Your task to perform on an android device: Search for razer thresher on bestbuy.com, select the first entry, add it to the cart, then select checkout. Image 0: 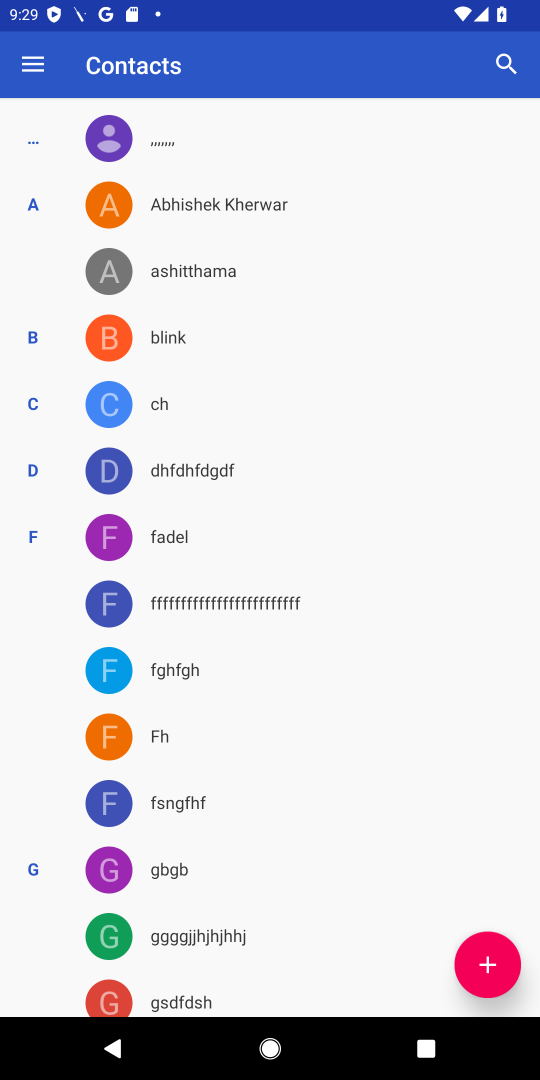
Step 0: press home button
Your task to perform on an android device: Search for razer thresher on bestbuy.com, select the first entry, add it to the cart, then select checkout. Image 1: 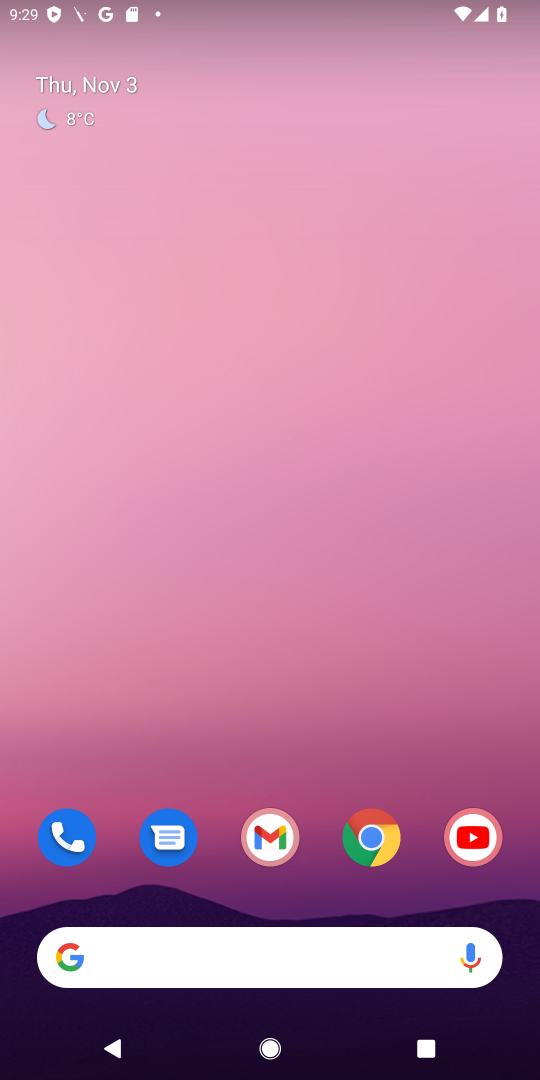
Step 1: click (389, 828)
Your task to perform on an android device: Search for razer thresher on bestbuy.com, select the first entry, add it to the cart, then select checkout. Image 2: 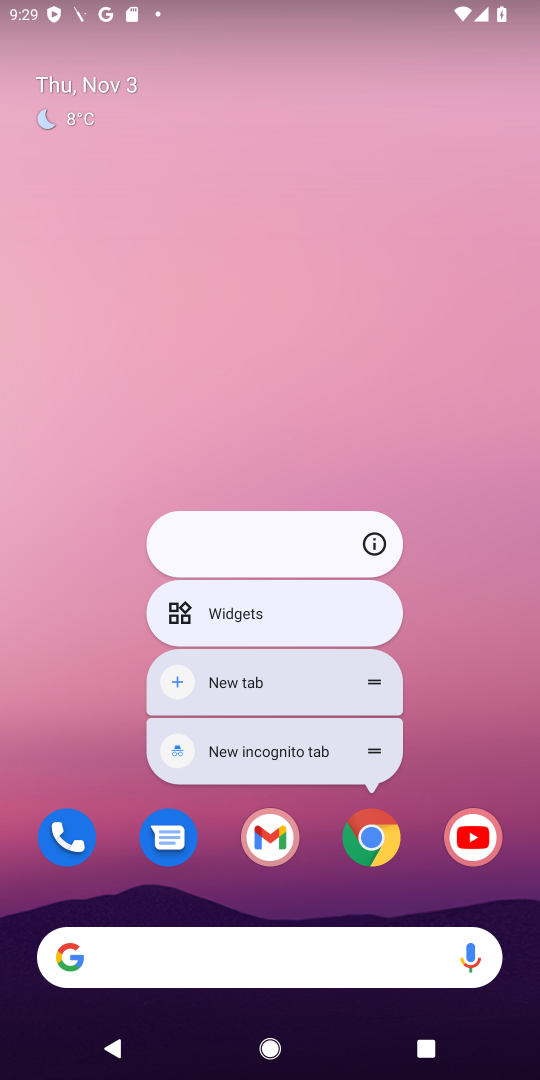
Step 2: click (376, 832)
Your task to perform on an android device: Search for razer thresher on bestbuy.com, select the first entry, add it to the cart, then select checkout. Image 3: 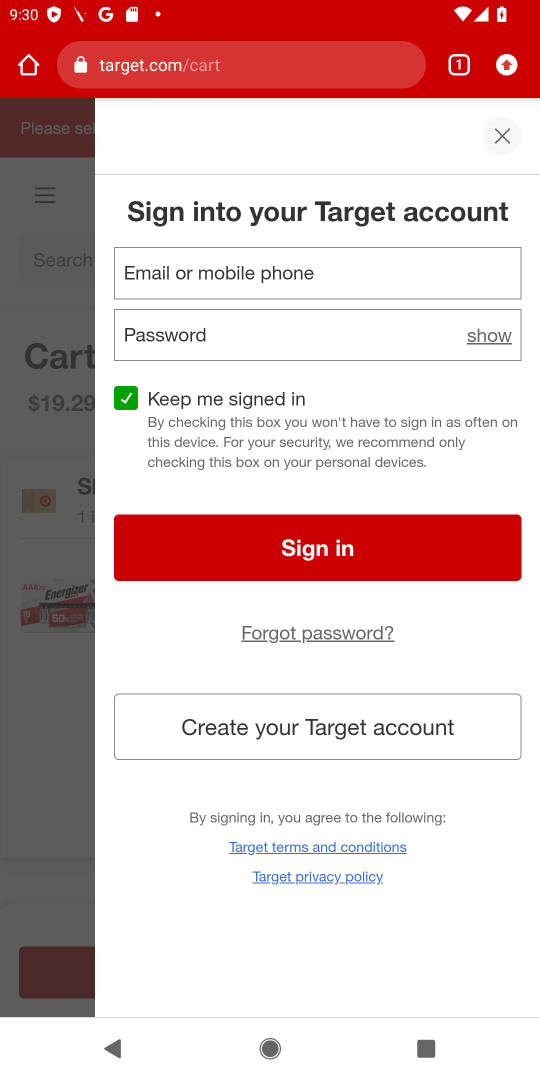
Step 3: click (281, 53)
Your task to perform on an android device: Search for razer thresher on bestbuy.com, select the first entry, add it to the cart, then select checkout. Image 4: 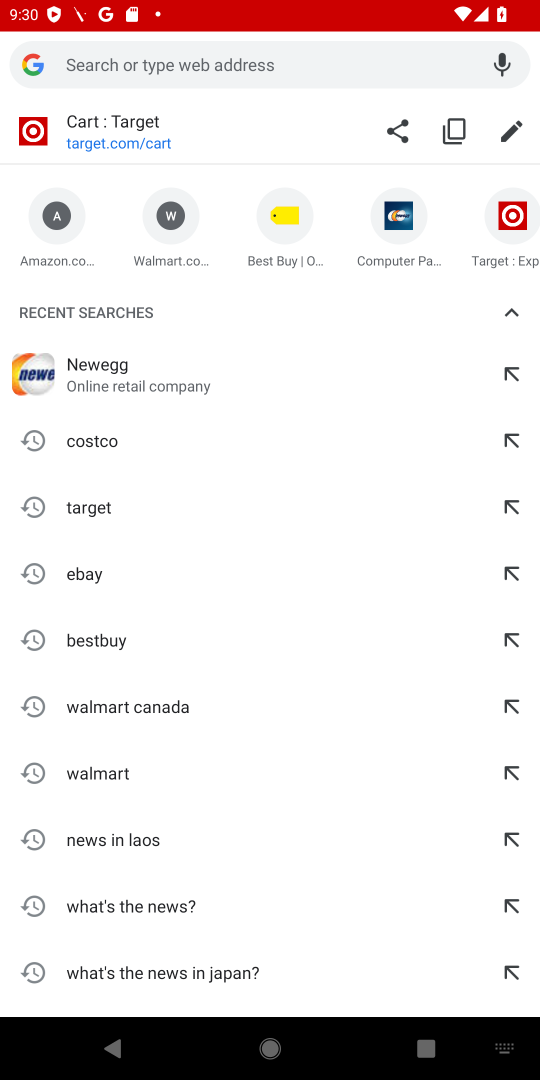
Step 4: click (107, 630)
Your task to perform on an android device: Search for razer thresher on bestbuy.com, select the first entry, add it to the cart, then select checkout. Image 5: 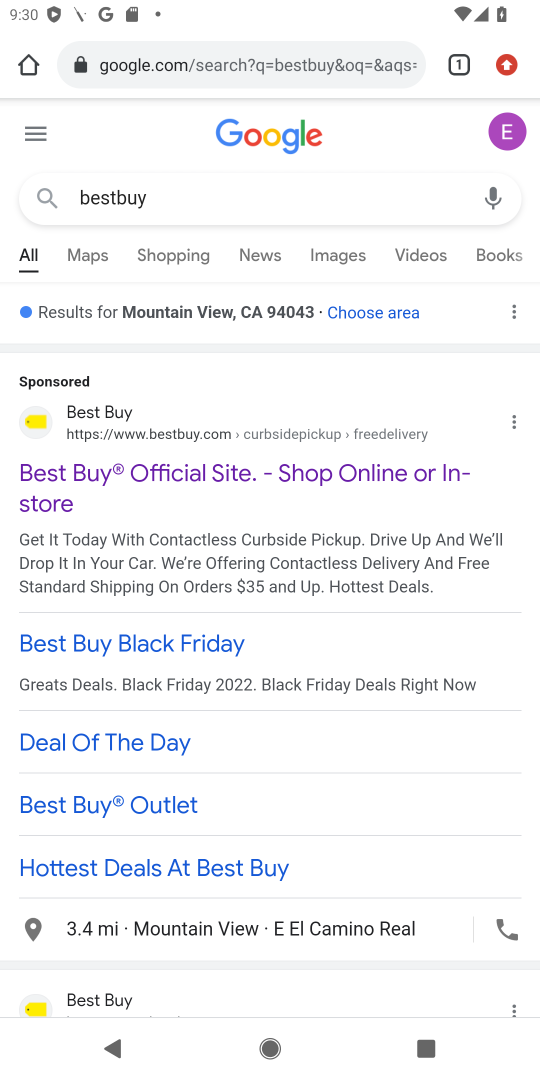
Step 5: click (127, 472)
Your task to perform on an android device: Search for razer thresher on bestbuy.com, select the first entry, add it to the cart, then select checkout. Image 6: 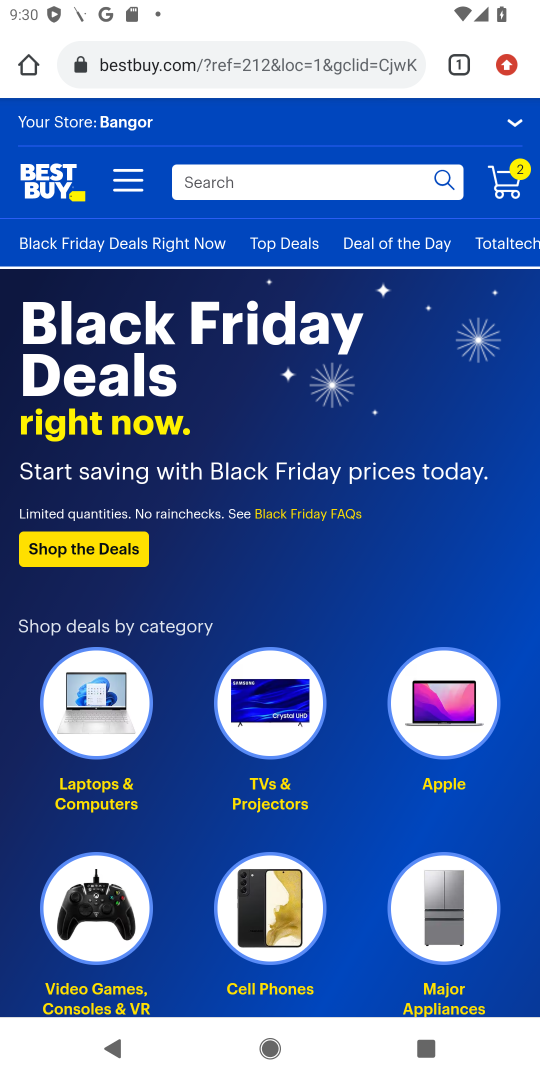
Step 6: click (366, 178)
Your task to perform on an android device: Search for razer thresher on bestbuy.com, select the first entry, add it to the cart, then select checkout. Image 7: 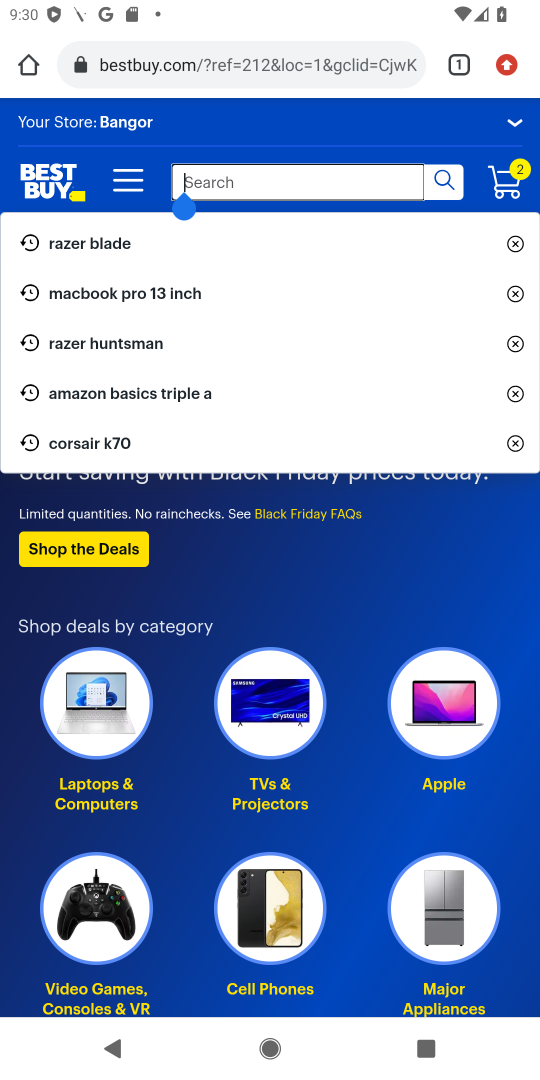
Step 7: type "razer thresher "
Your task to perform on an android device: Search for razer thresher on bestbuy.com, select the first entry, add it to the cart, then select checkout. Image 8: 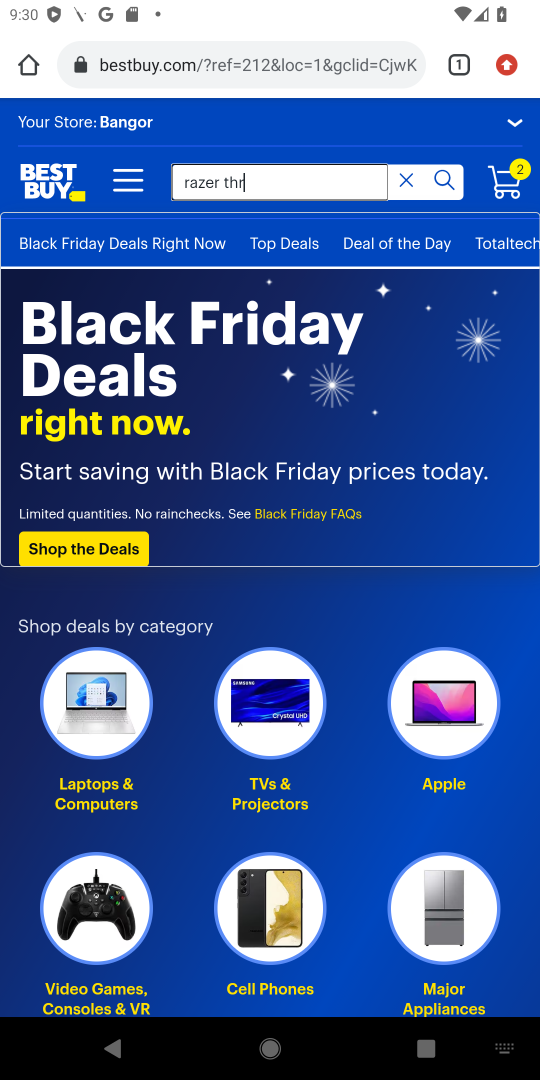
Step 8: press enter
Your task to perform on an android device: Search for razer thresher on bestbuy.com, select the first entry, add it to the cart, then select checkout. Image 9: 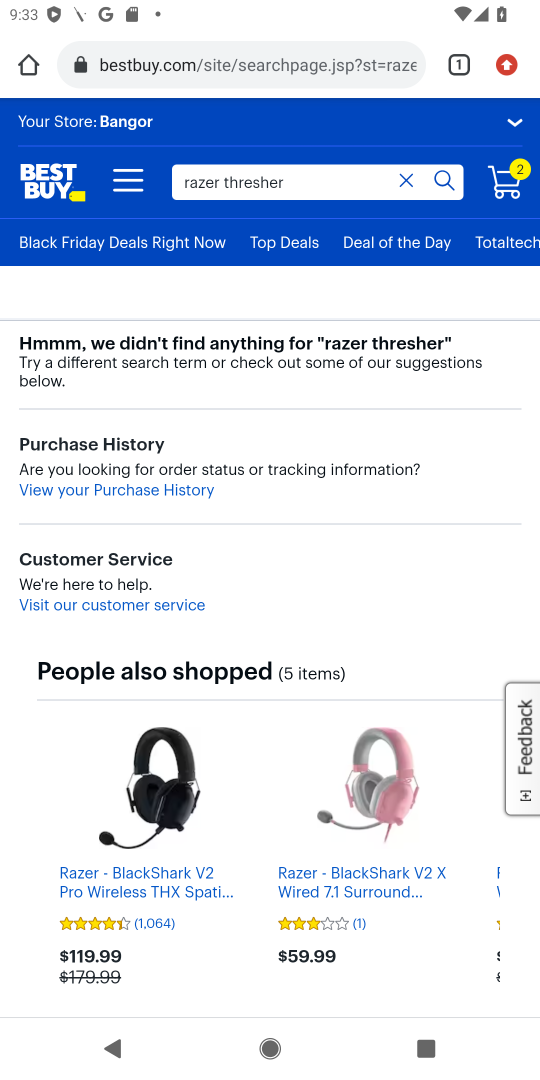
Step 9: task complete